Your task to perform on an android device: Go to sound settings Image 0: 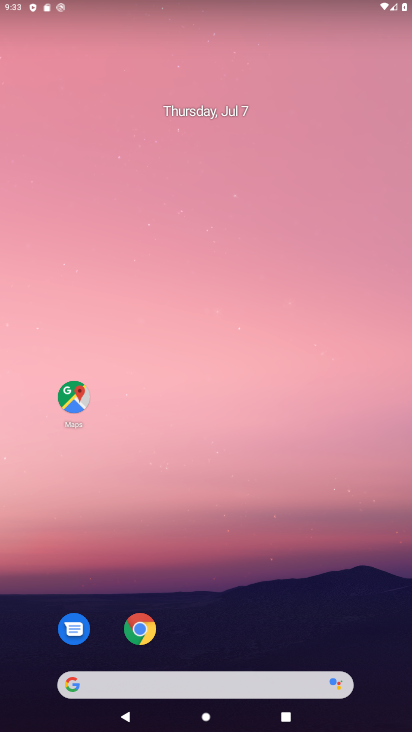
Step 0: drag from (89, 568) to (391, 29)
Your task to perform on an android device: Go to sound settings Image 1: 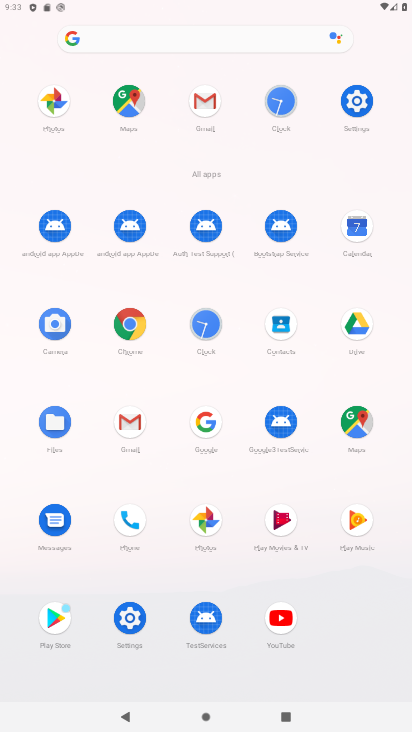
Step 1: click (128, 625)
Your task to perform on an android device: Go to sound settings Image 2: 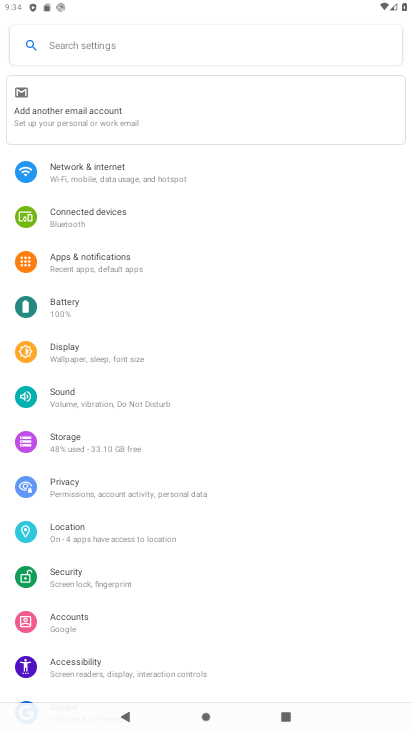
Step 2: click (101, 390)
Your task to perform on an android device: Go to sound settings Image 3: 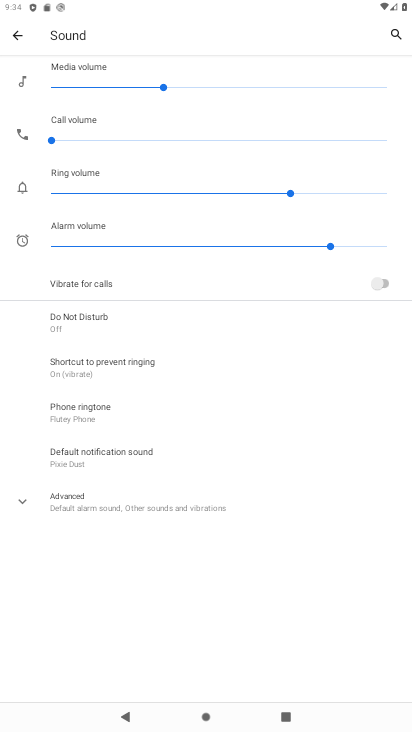
Step 3: task complete